Your task to perform on an android device: turn pop-ups off in chrome Image 0: 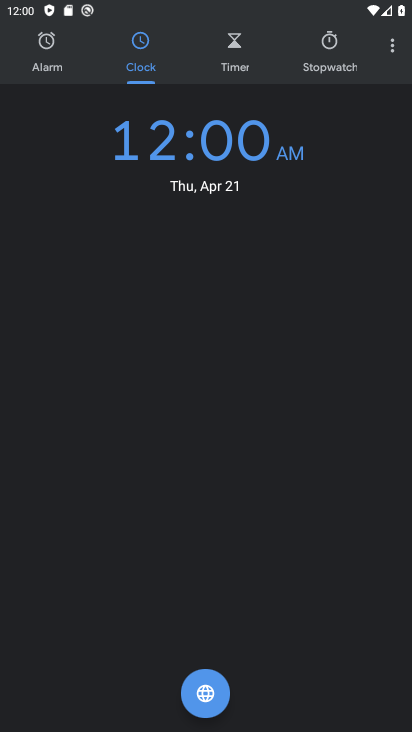
Step 0: press home button
Your task to perform on an android device: turn pop-ups off in chrome Image 1: 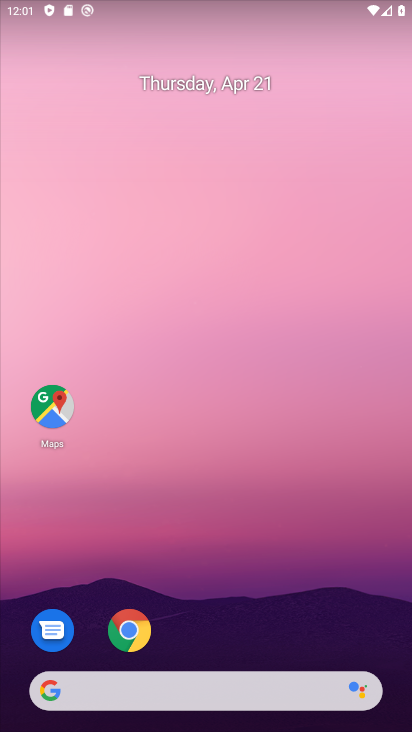
Step 1: click (123, 634)
Your task to perform on an android device: turn pop-ups off in chrome Image 2: 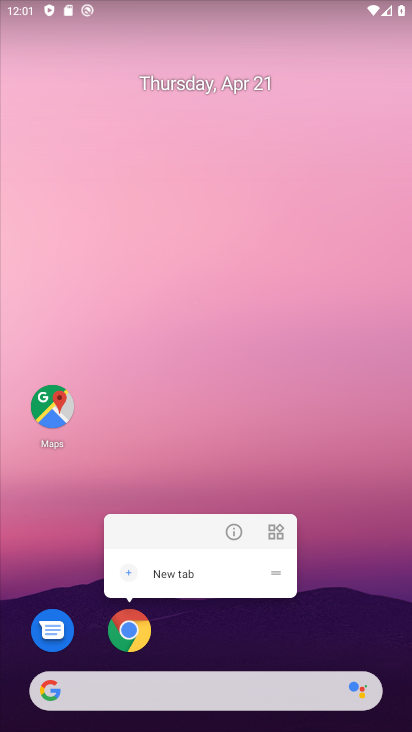
Step 2: click (129, 630)
Your task to perform on an android device: turn pop-ups off in chrome Image 3: 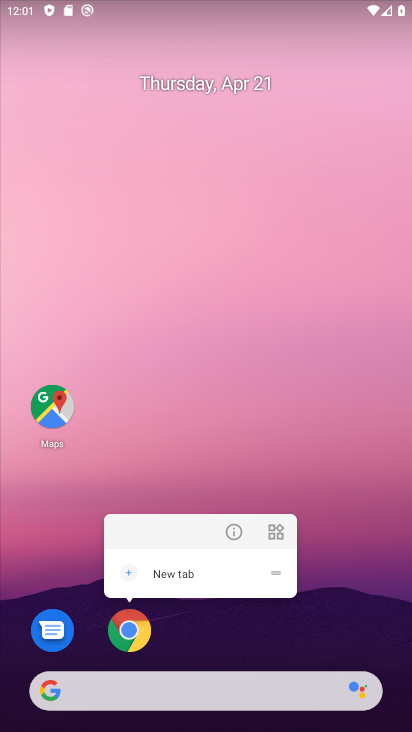
Step 3: click (126, 637)
Your task to perform on an android device: turn pop-ups off in chrome Image 4: 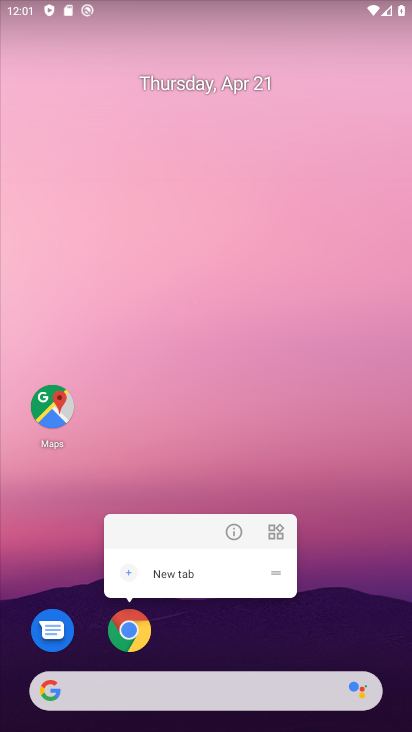
Step 4: click (129, 633)
Your task to perform on an android device: turn pop-ups off in chrome Image 5: 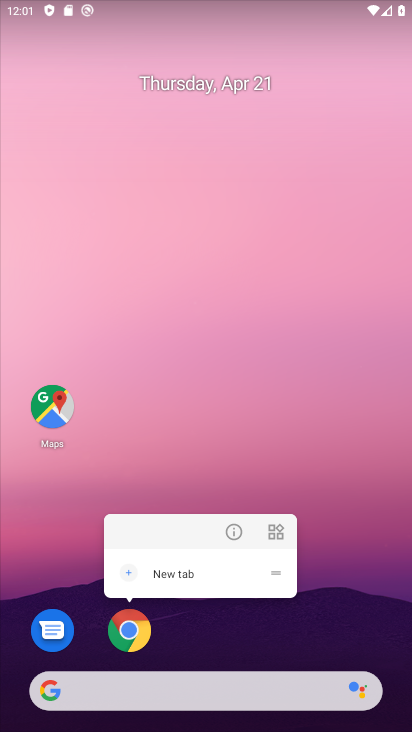
Step 5: click (129, 633)
Your task to perform on an android device: turn pop-ups off in chrome Image 6: 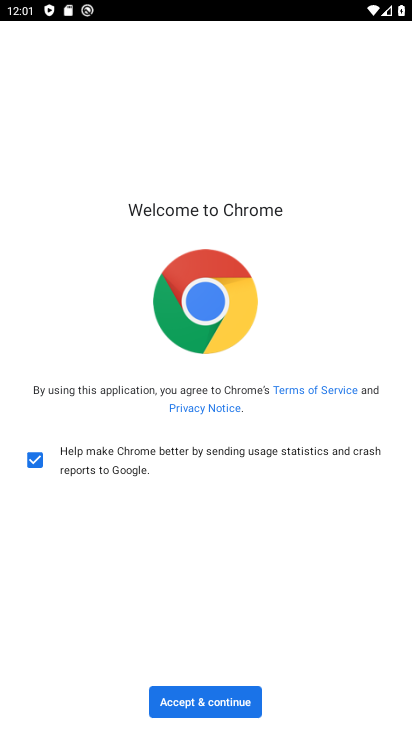
Step 6: click (227, 714)
Your task to perform on an android device: turn pop-ups off in chrome Image 7: 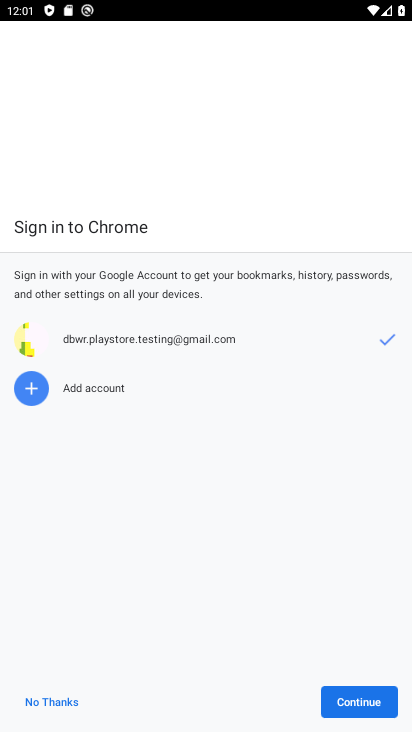
Step 7: click (347, 699)
Your task to perform on an android device: turn pop-ups off in chrome Image 8: 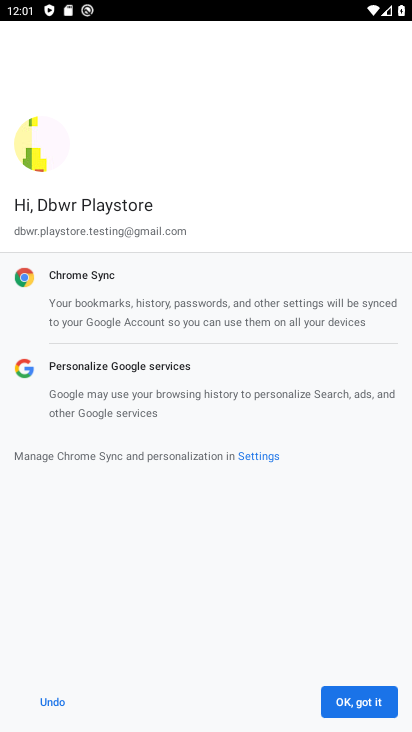
Step 8: click (351, 713)
Your task to perform on an android device: turn pop-ups off in chrome Image 9: 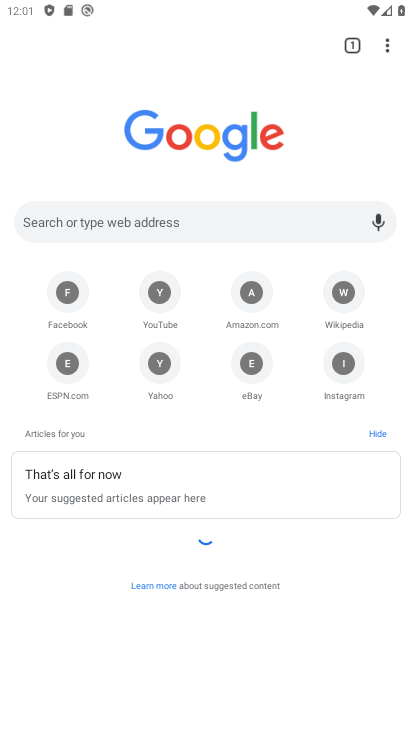
Step 9: click (388, 44)
Your task to perform on an android device: turn pop-ups off in chrome Image 10: 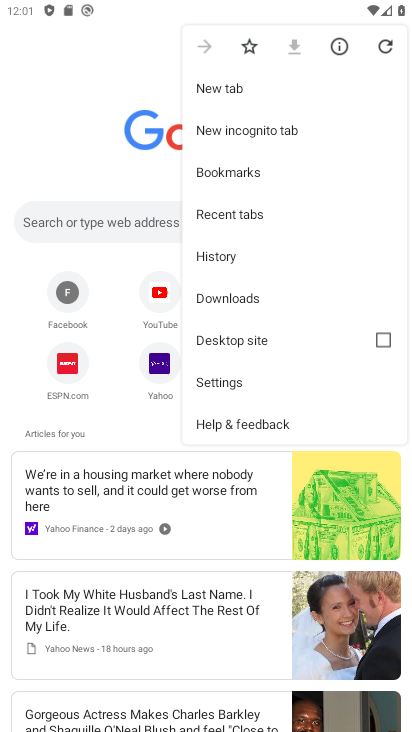
Step 10: click (229, 385)
Your task to perform on an android device: turn pop-ups off in chrome Image 11: 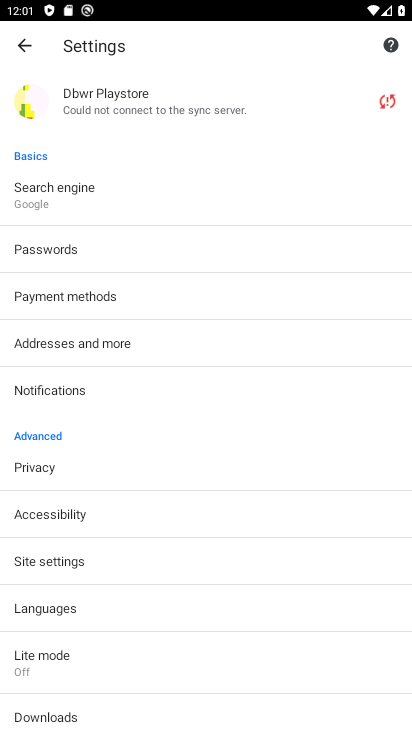
Step 11: click (58, 560)
Your task to perform on an android device: turn pop-ups off in chrome Image 12: 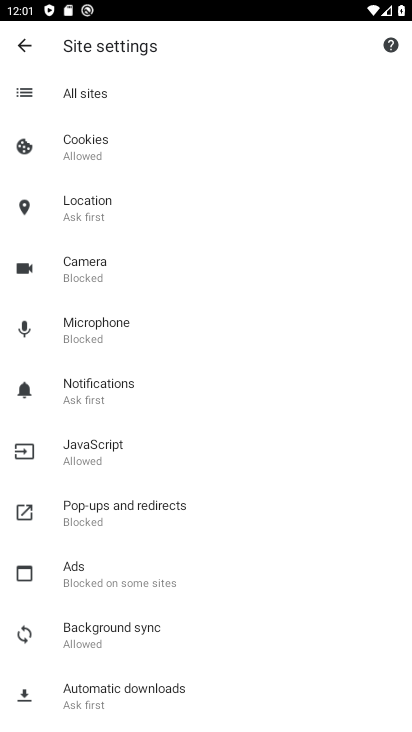
Step 12: click (107, 510)
Your task to perform on an android device: turn pop-ups off in chrome Image 13: 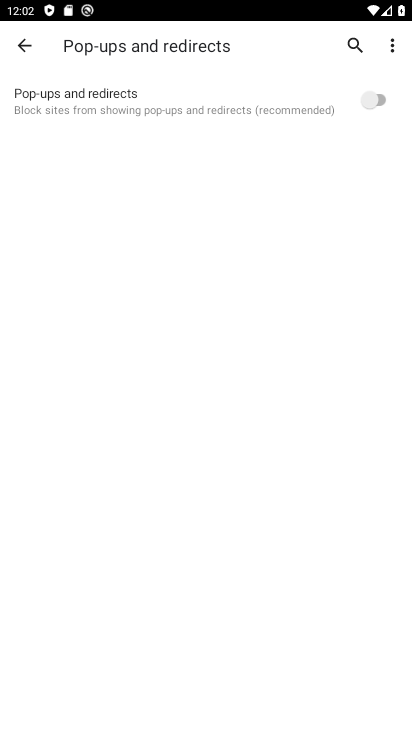
Step 13: task complete